Your task to perform on an android device: Toggle the flashlight Image 0: 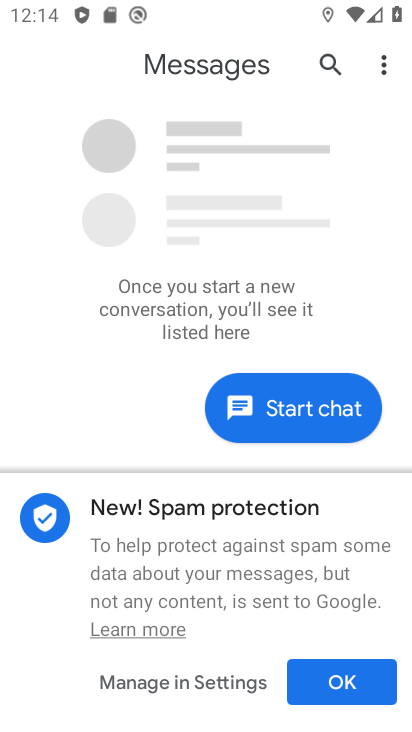
Step 0: press home button
Your task to perform on an android device: Toggle the flashlight Image 1: 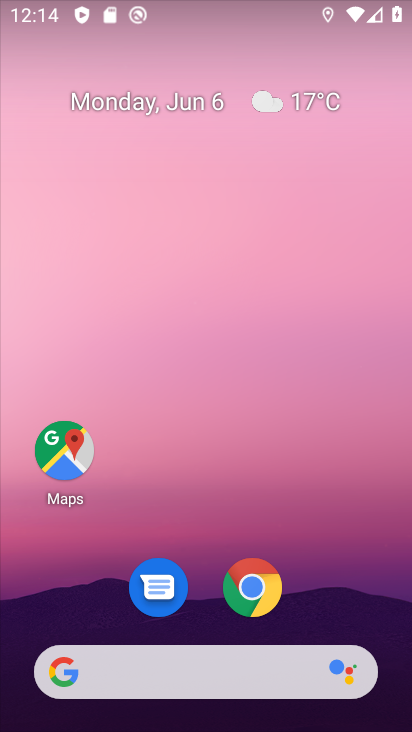
Step 1: drag from (364, 605) to (297, 51)
Your task to perform on an android device: Toggle the flashlight Image 2: 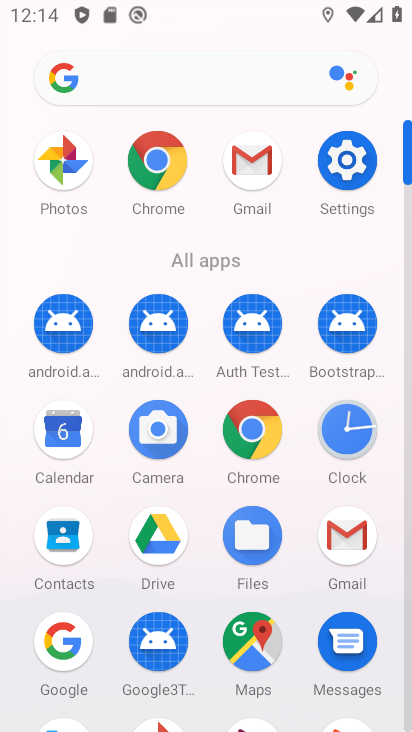
Step 2: drag from (303, 6) to (268, 448)
Your task to perform on an android device: Toggle the flashlight Image 3: 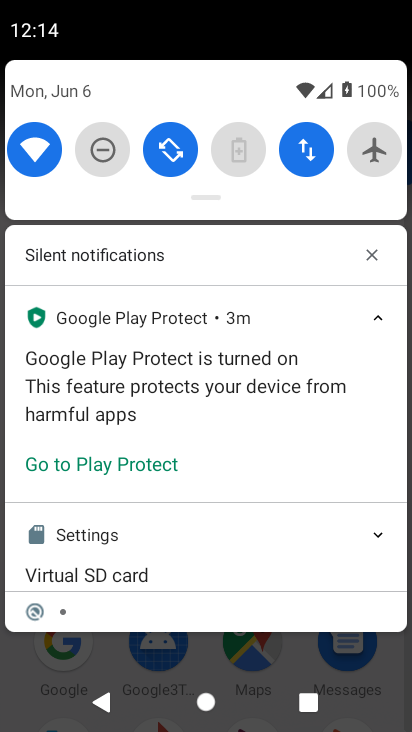
Step 3: drag from (235, 317) to (214, 576)
Your task to perform on an android device: Toggle the flashlight Image 4: 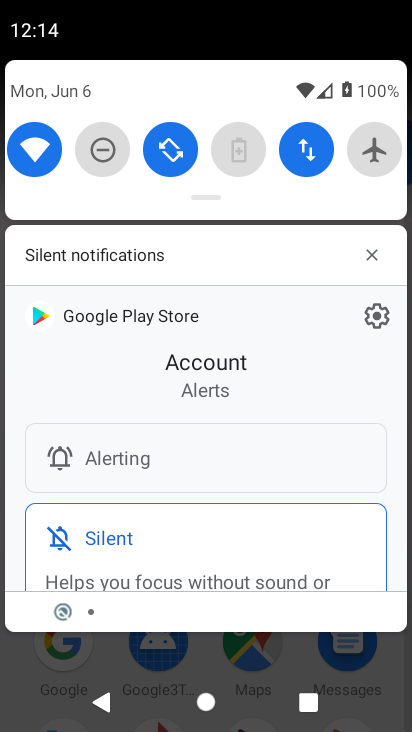
Step 4: drag from (394, 175) to (118, 141)
Your task to perform on an android device: Toggle the flashlight Image 5: 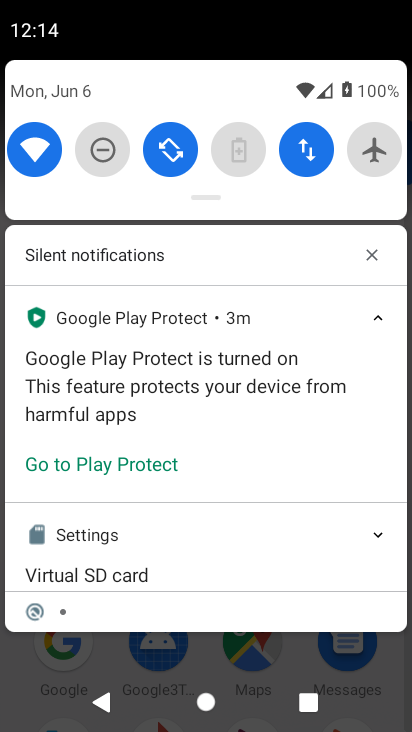
Step 5: drag from (202, 170) to (196, 407)
Your task to perform on an android device: Toggle the flashlight Image 6: 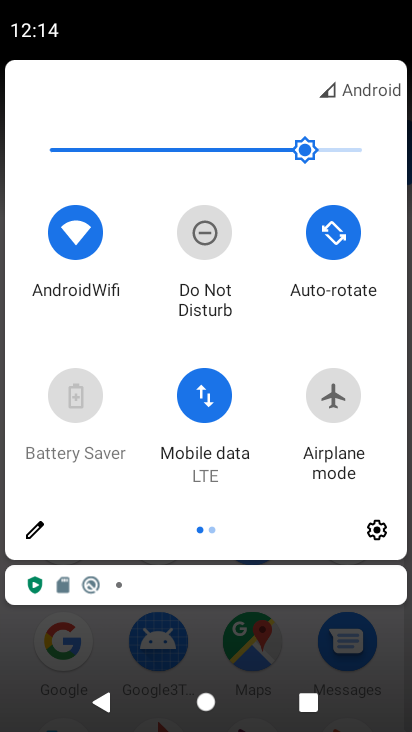
Step 6: drag from (364, 490) to (51, 500)
Your task to perform on an android device: Toggle the flashlight Image 7: 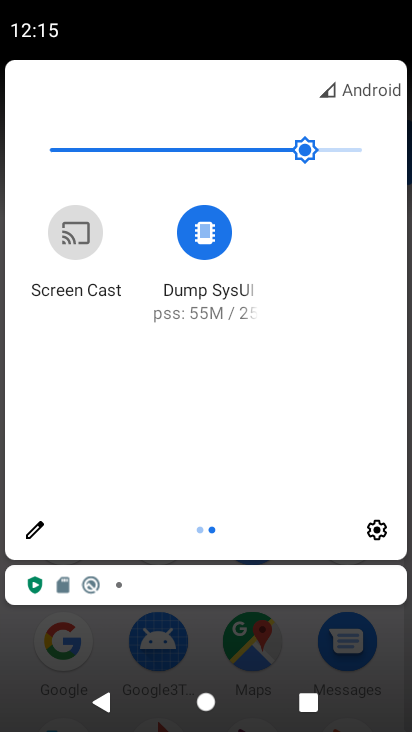
Step 7: click (36, 529)
Your task to perform on an android device: Toggle the flashlight Image 8: 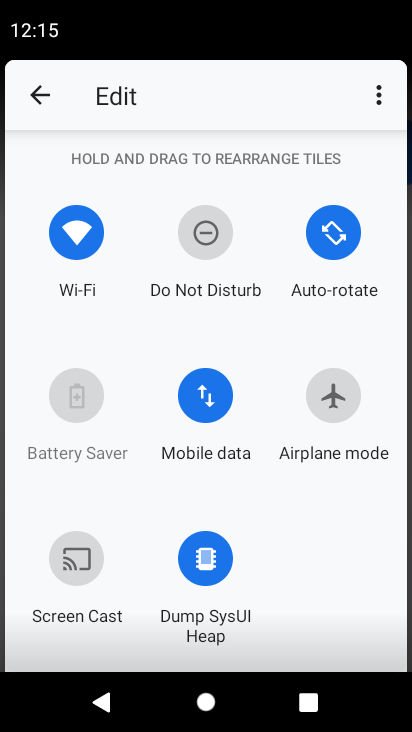
Step 8: task complete